Your task to perform on an android device: all mails in gmail Image 0: 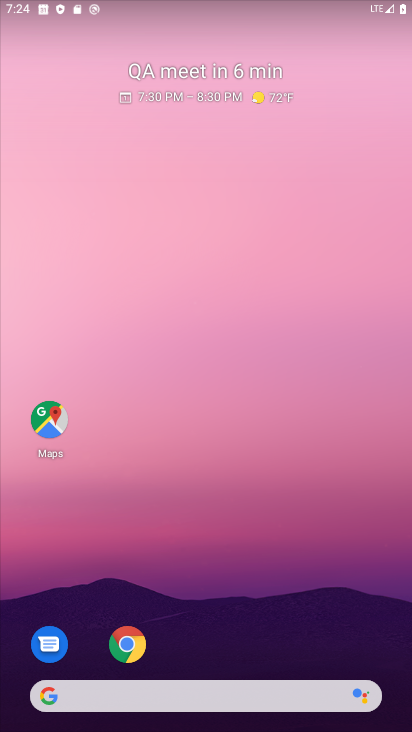
Step 0: press home button
Your task to perform on an android device: all mails in gmail Image 1: 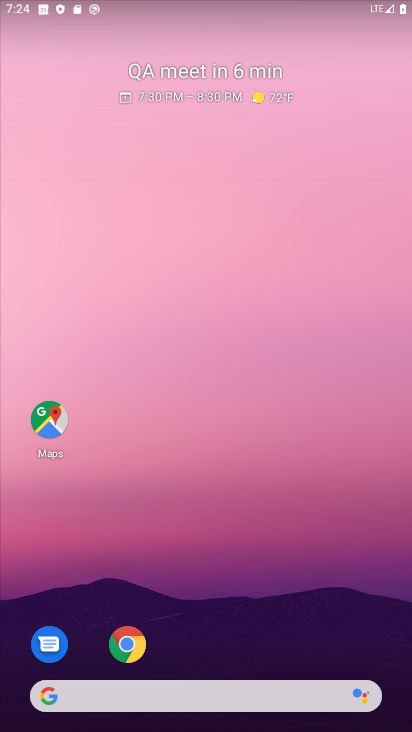
Step 1: drag from (310, 721) to (263, 55)
Your task to perform on an android device: all mails in gmail Image 2: 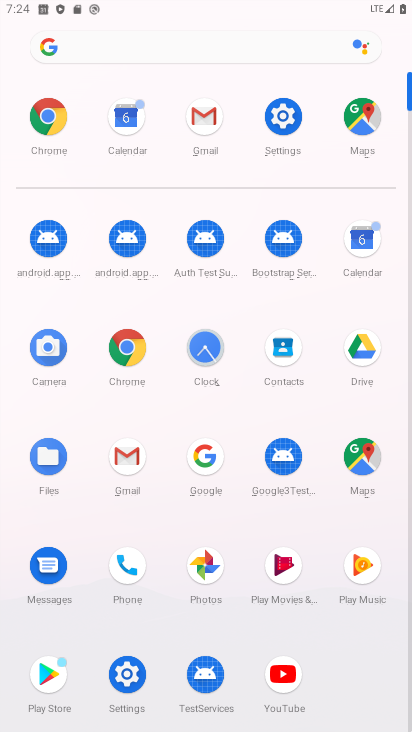
Step 2: click (203, 115)
Your task to perform on an android device: all mails in gmail Image 3: 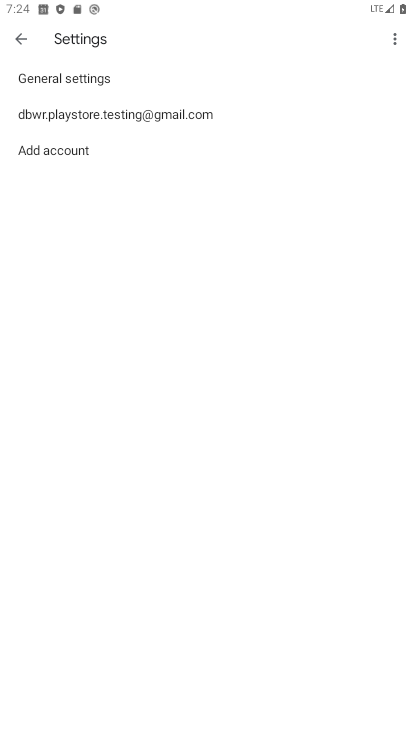
Step 3: click (16, 32)
Your task to perform on an android device: all mails in gmail Image 4: 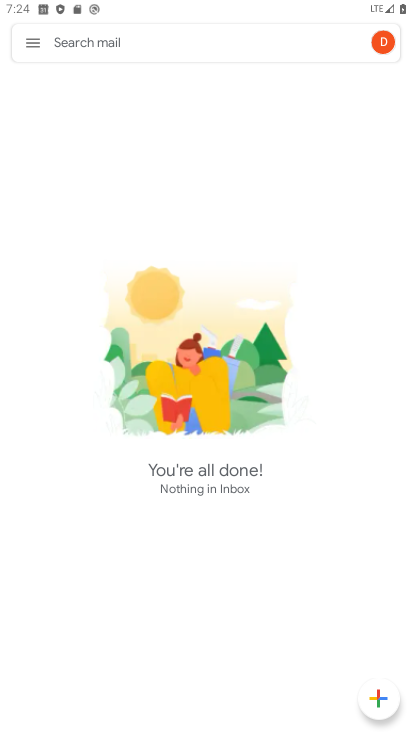
Step 4: click (31, 48)
Your task to perform on an android device: all mails in gmail Image 5: 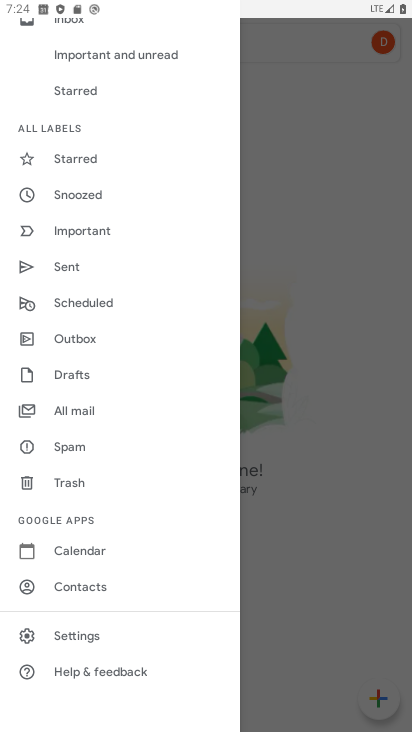
Step 5: click (68, 408)
Your task to perform on an android device: all mails in gmail Image 6: 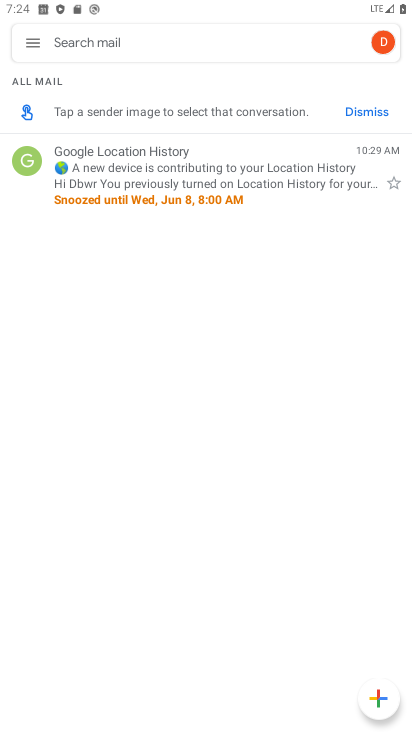
Step 6: task complete